Your task to perform on an android device: Open Google Maps and go to "Timeline" Image 0: 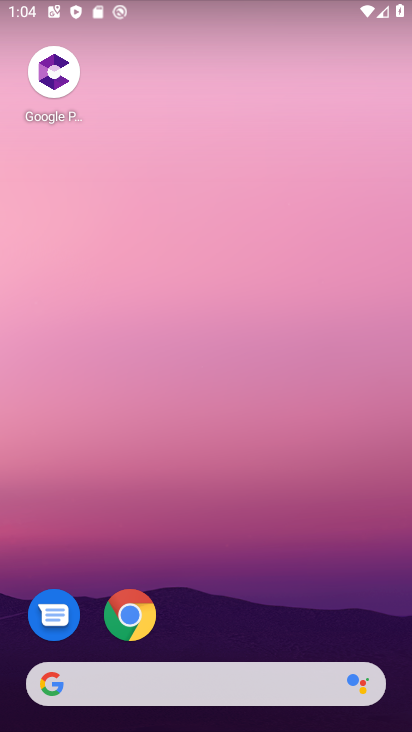
Step 0: drag from (228, 612) to (294, 178)
Your task to perform on an android device: Open Google Maps and go to "Timeline" Image 1: 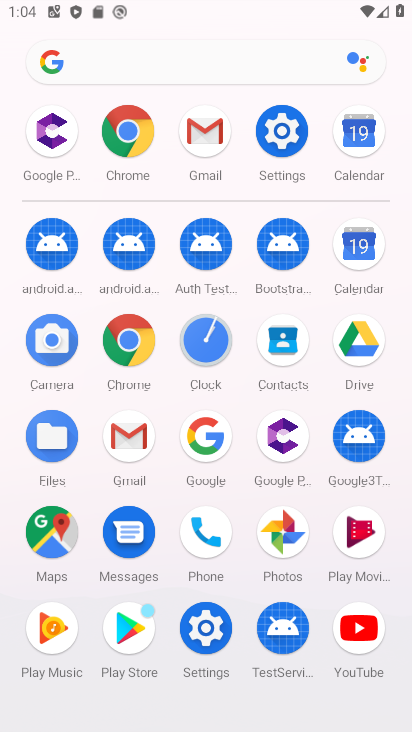
Step 1: click (68, 533)
Your task to perform on an android device: Open Google Maps and go to "Timeline" Image 2: 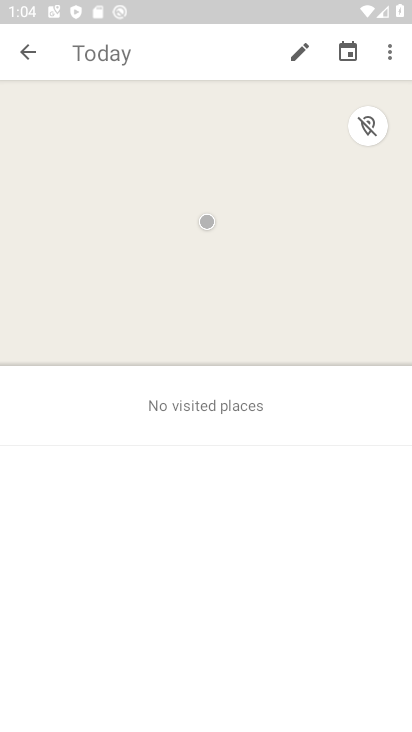
Step 2: click (39, 48)
Your task to perform on an android device: Open Google Maps and go to "Timeline" Image 3: 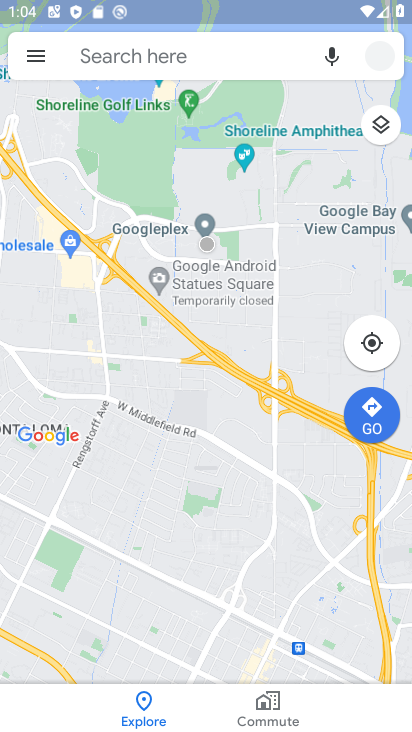
Step 3: click (36, 48)
Your task to perform on an android device: Open Google Maps and go to "Timeline" Image 4: 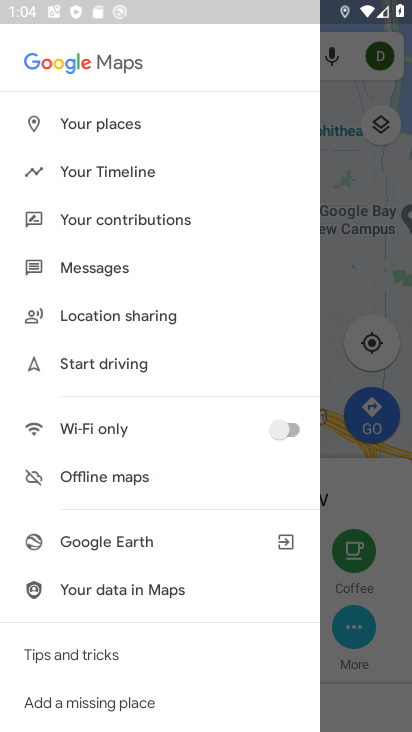
Step 4: drag from (162, 326) to (172, 427)
Your task to perform on an android device: Open Google Maps and go to "Timeline" Image 5: 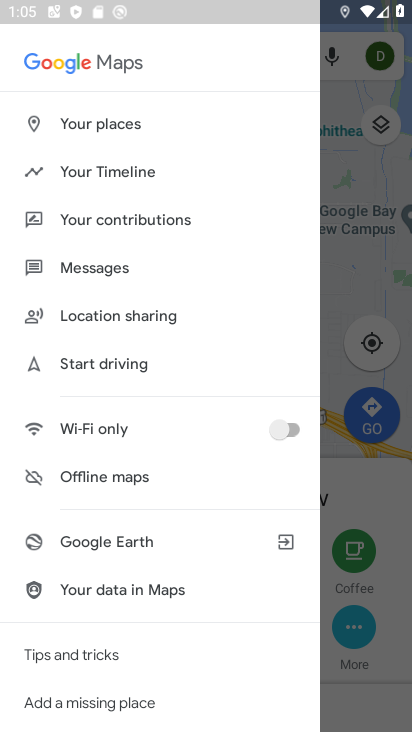
Step 5: click (96, 179)
Your task to perform on an android device: Open Google Maps and go to "Timeline" Image 6: 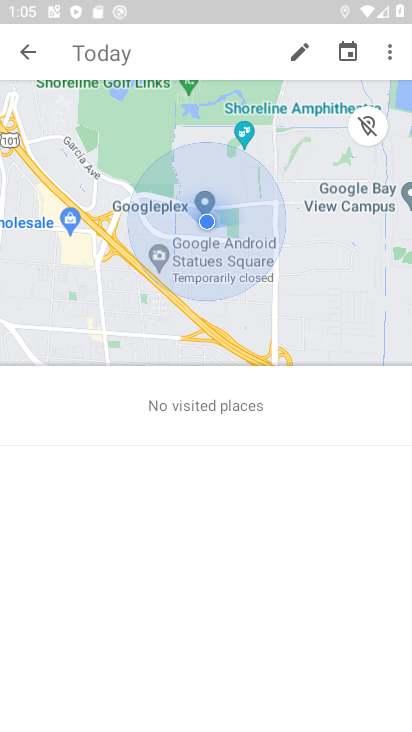
Step 6: task complete